Your task to perform on an android device: turn on translation in the chrome app Image 0: 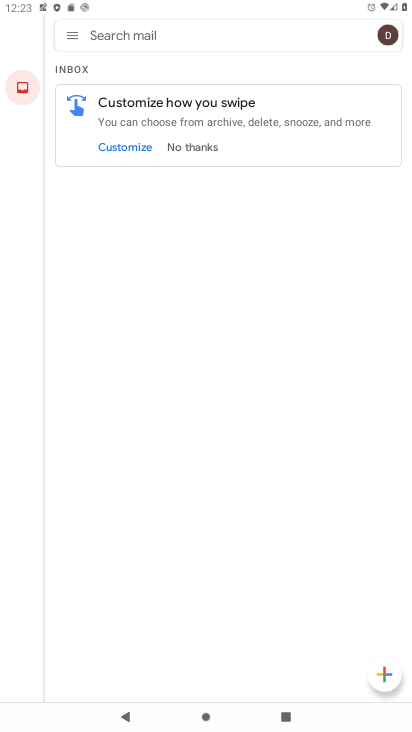
Step 0: press home button
Your task to perform on an android device: turn on translation in the chrome app Image 1: 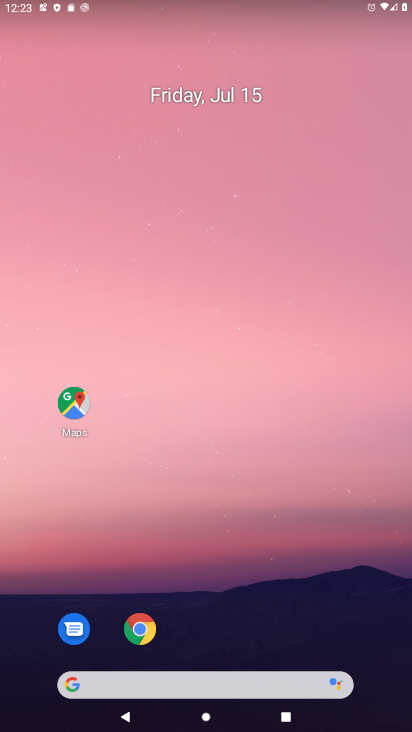
Step 1: drag from (234, 648) to (208, 121)
Your task to perform on an android device: turn on translation in the chrome app Image 2: 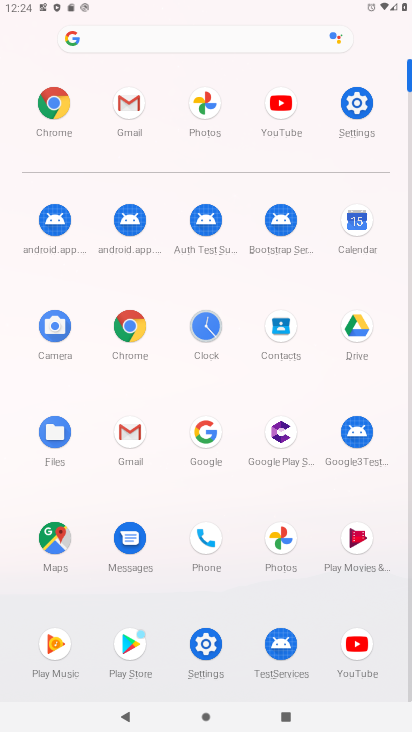
Step 2: click (55, 109)
Your task to perform on an android device: turn on translation in the chrome app Image 3: 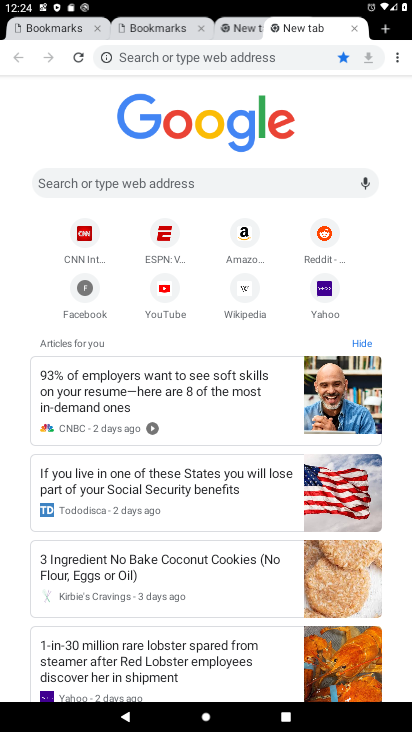
Step 3: drag from (393, 57) to (276, 269)
Your task to perform on an android device: turn on translation in the chrome app Image 4: 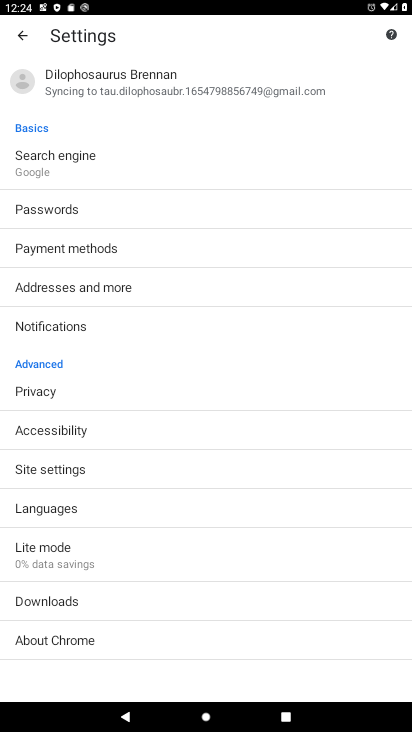
Step 4: click (55, 512)
Your task to perform on an android device: turn on translation in the chrome app Image 5: 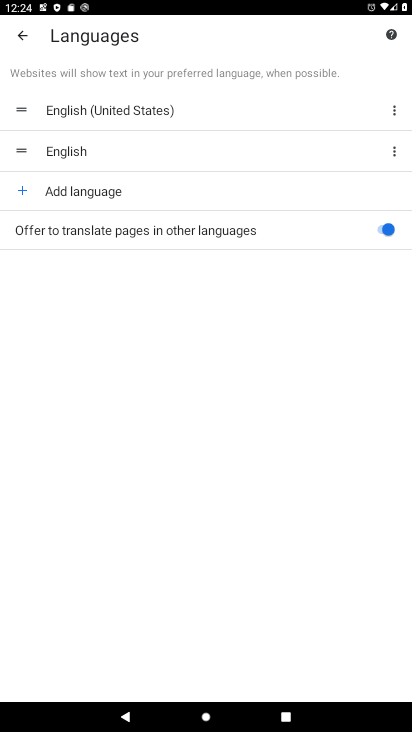
Step 5: task complete